Your task to perform on an android device: What's on the menu at Chipotle? Image 0: 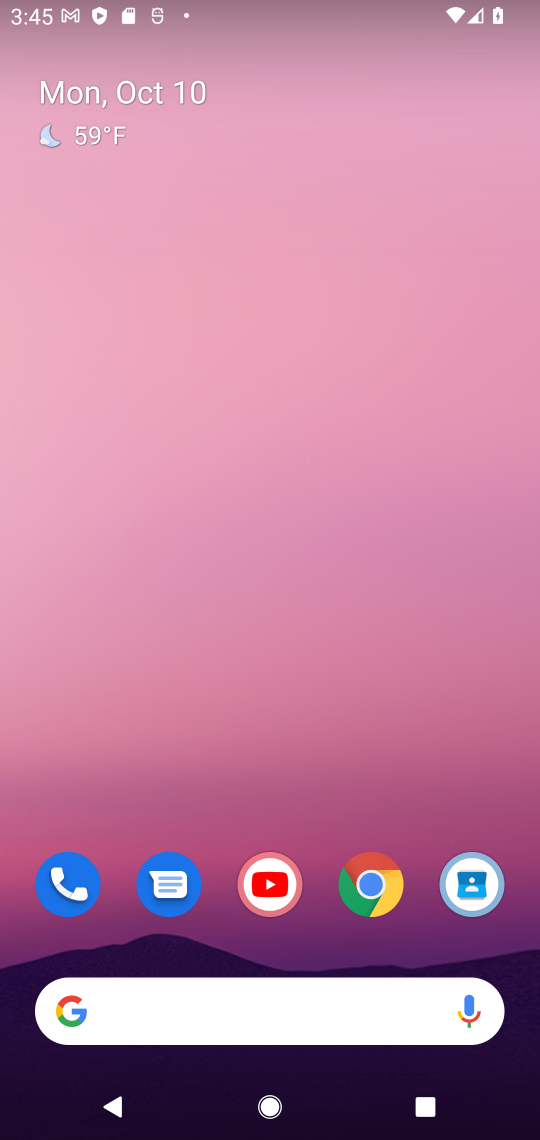
Step 0: click (368, 891)
Your task to perform on an android device: What's on the menu at Chipotle? Image 1: 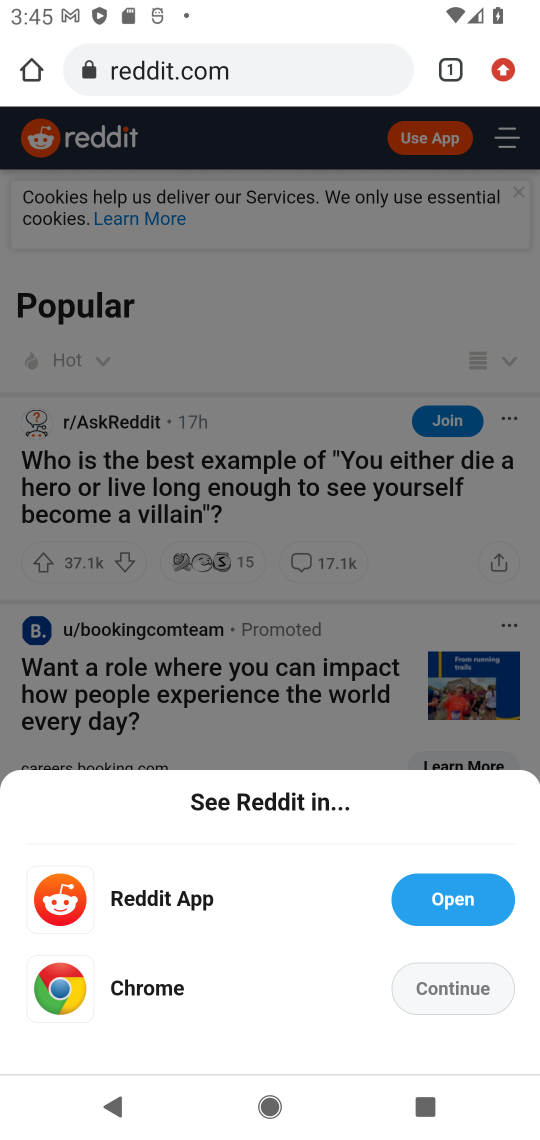
Step 1: click (231, 68)
Your task to perform on an android device: What's on the menu at Chipotle? Image 2: 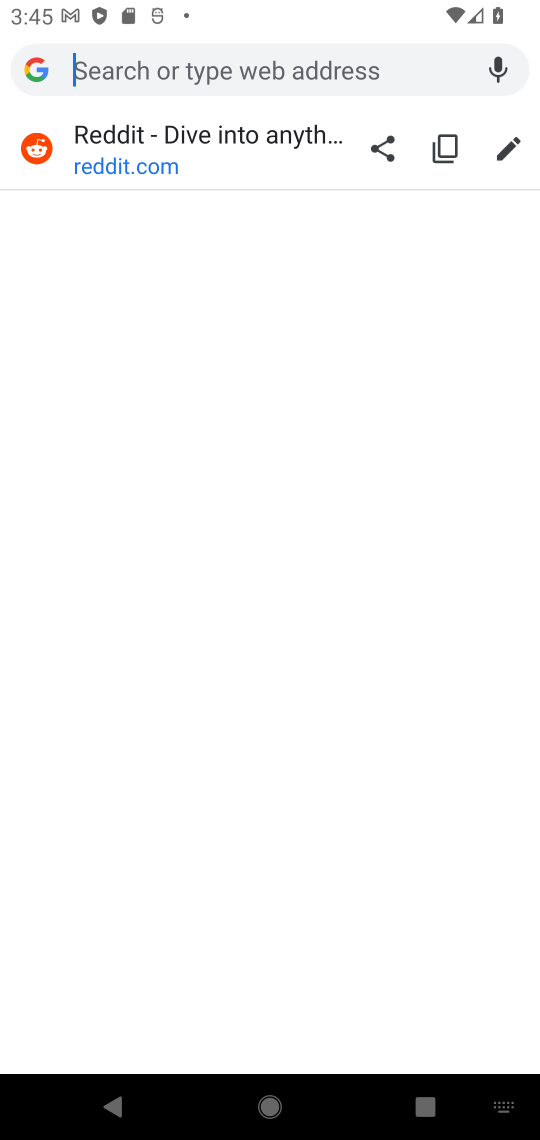
Step 2: type "What's on the menu at Chipotle?"
Your task to perform on an android device: What's on the menu at Chipotle? Image 3: 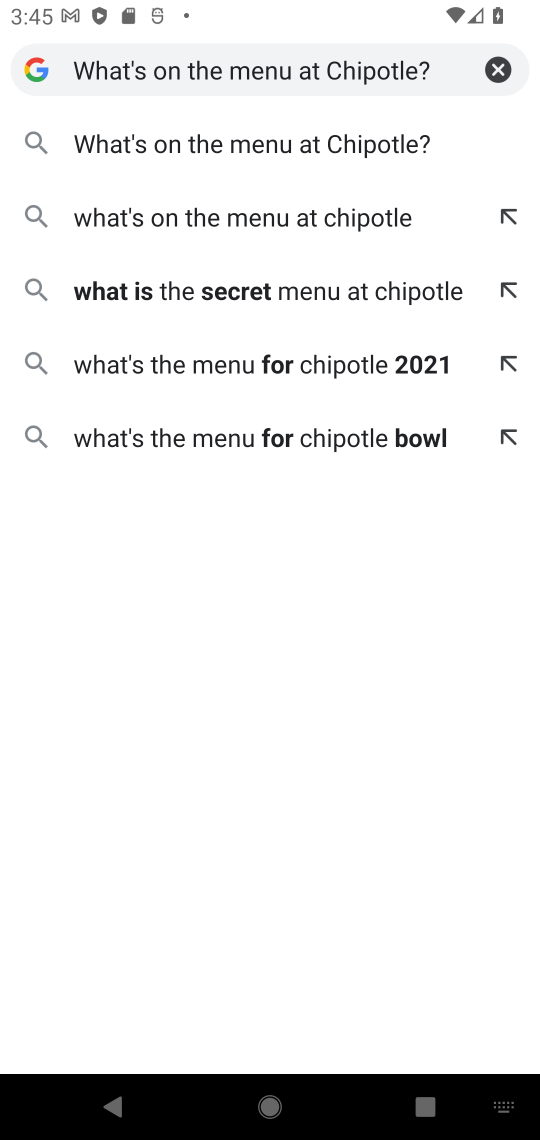
Step 3: click (147, 140)
Your task to perform on an android device: What's on the menu at Chipotle? Image 4: 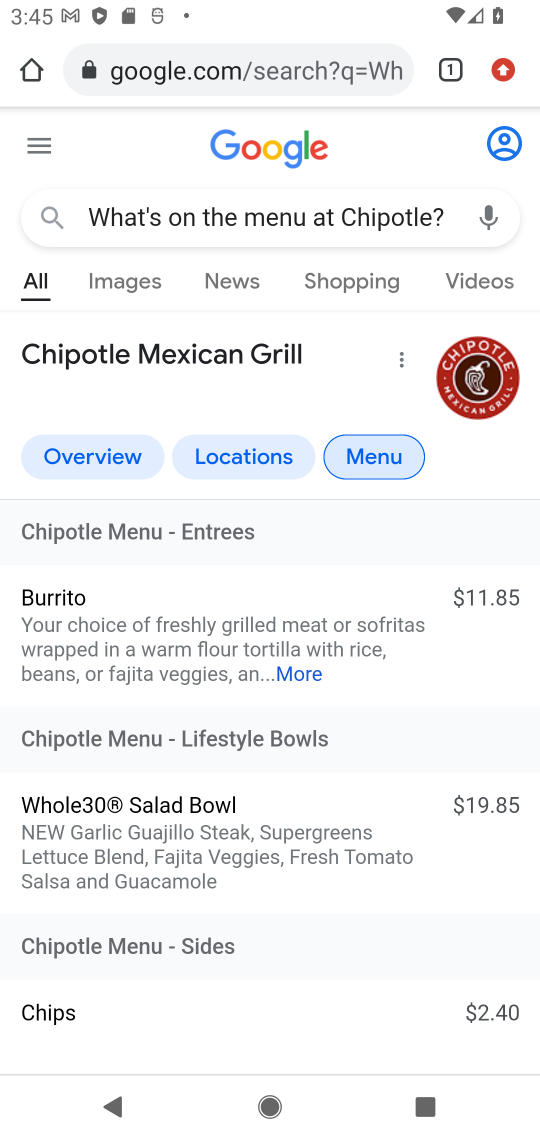
Step 4: task complete